Your task to perform on an android device: set default search engine in the chrome app Image 0: 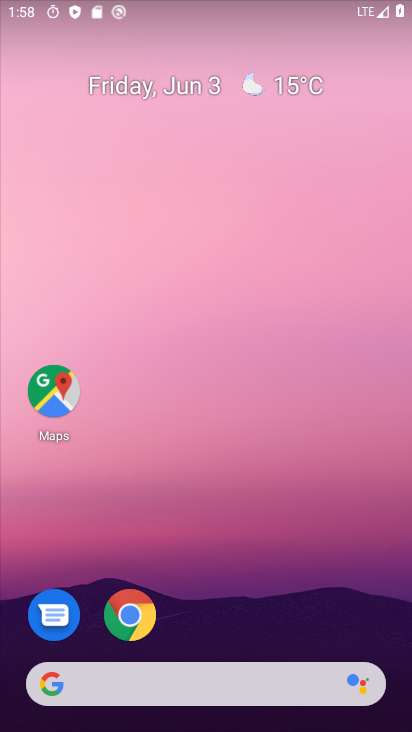
Step 0: drag from (217, 436) to (66, 62)
Your task to perform on an android device: set default search engine in the chrome app Image 1: 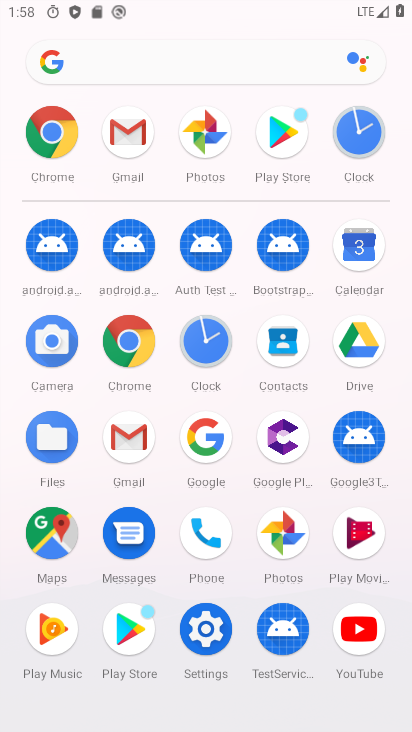
Step 1: click (132, 349)
Your task to perform on an android device: set default search engine in the chrome app Image 2: 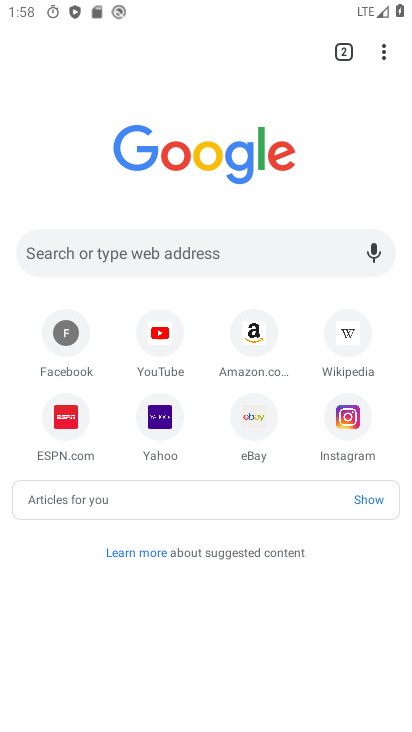
Step 2: click (388, 69)
Your task to perform on an android device: set default search engine in the chrome app Image 3: 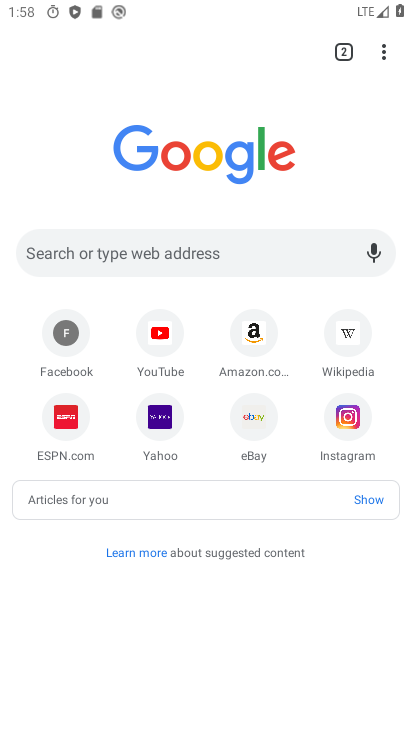
Step 3: click (386, 51)
Your task to perform on an android device: set default search engine in the chrome app Image 4: 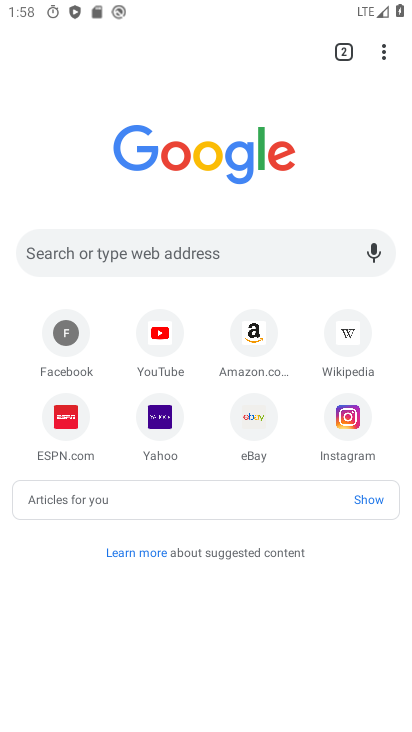
Step 4: click (373, 62)
Your task to perform on an android device: set default search engine in the chrome app Image 5: 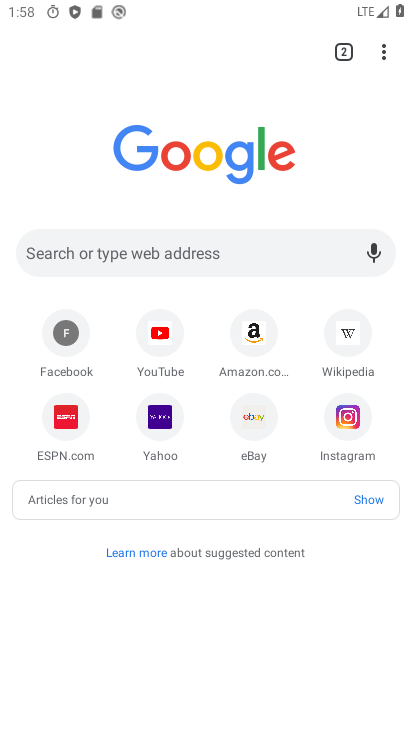
Step 5: drag from (384, 49) to (232, 427)
Your task to perform on an android device: set default search engine in the chrome app Image 6: 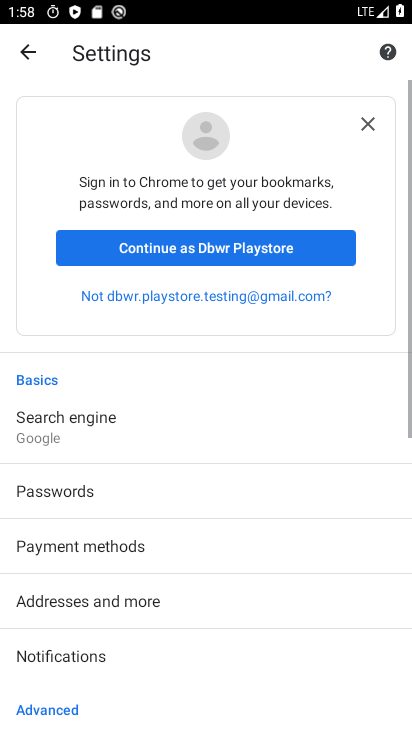
Step 6: click (112, 391)
Your task to perform on an android device: set default search engine in the chrome app Image 7: 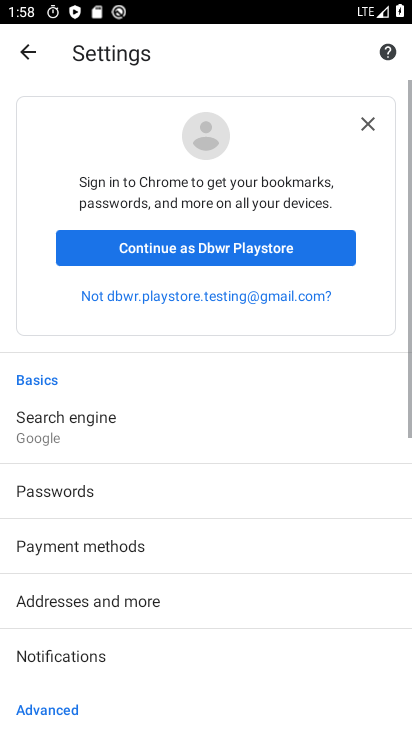
Step 7: click (124, 409)
Your task to perform on an android device: set default search engine in the chrome app Image 8: 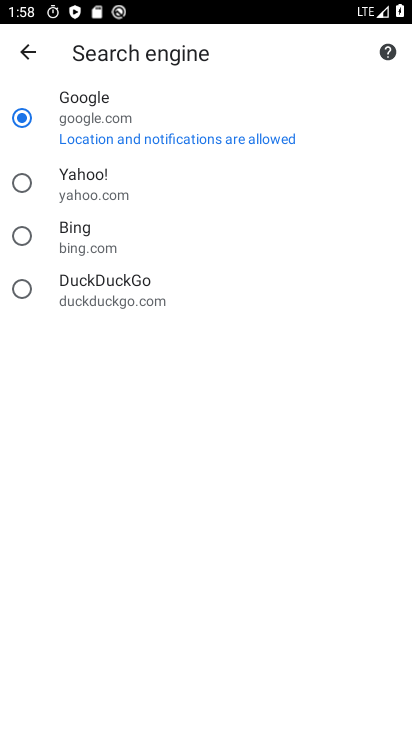
Step 8: task complete